Your task to perform on an android device: Go to ESPN.com Image 0: 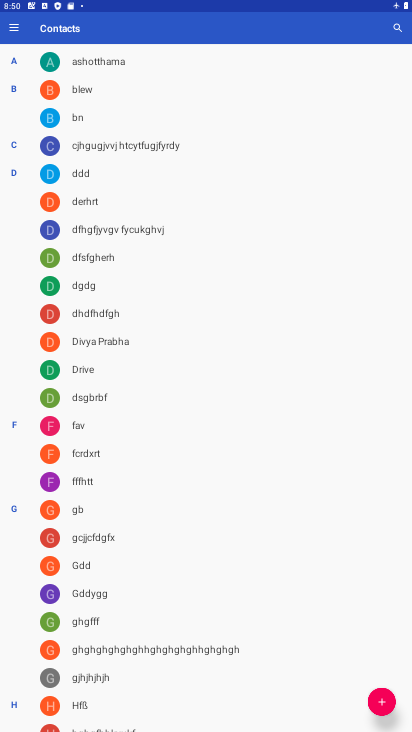
Step 0: press home button
Your task to perform on an android device: Go to ESPN.com Image 1: 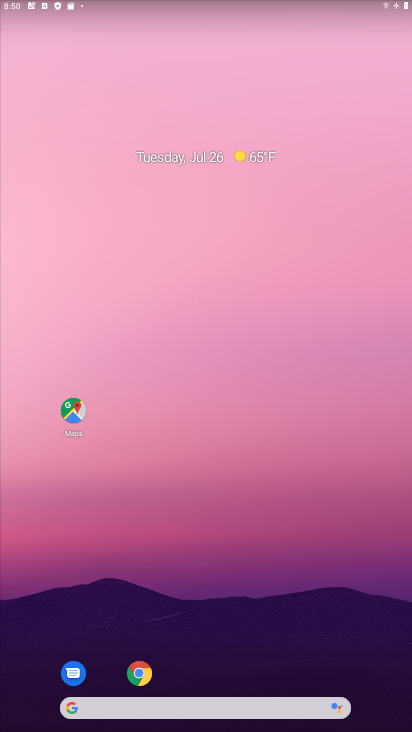
Step 1: click (145, 668)
Your task to perform on an android device: Go to ESPN.com Image 2: 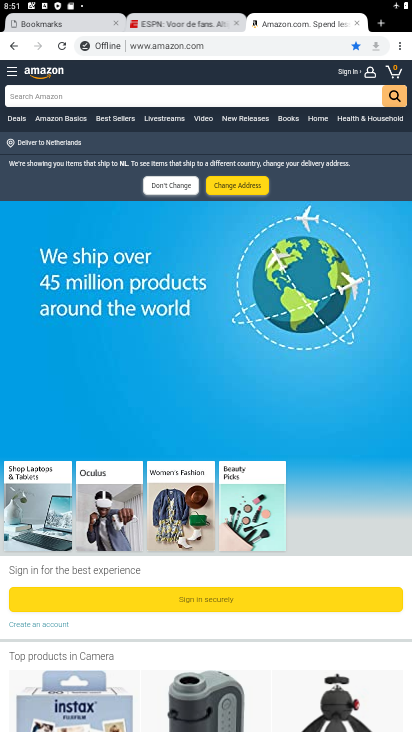
Step 2: click (217, 17)
Your task to perform on an android device: Go to ESPN.com Image 3: 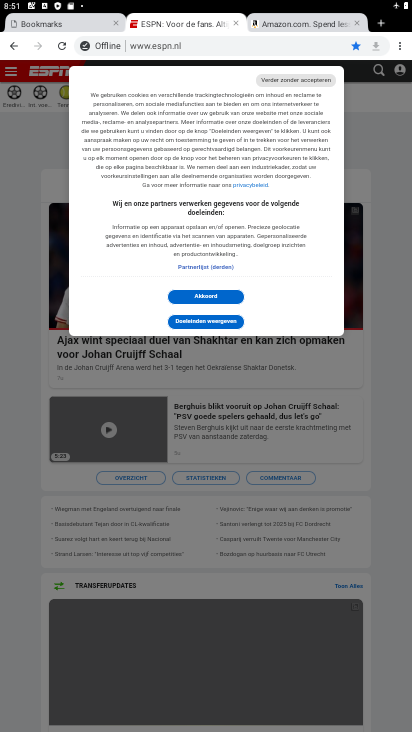
Step 3: task complete